Your task to perform on an android device: Search for Italian restaurants on Maps Image 0: 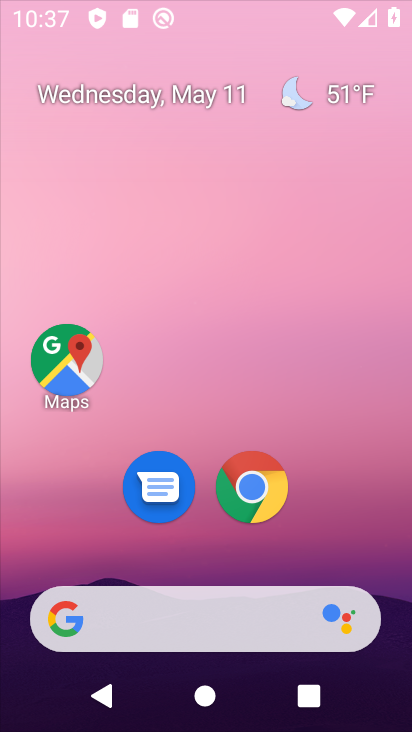
Step 0: drag from (339, 537) to (314, 163)
Your task to perform on an android device: Search for Italian restaurants on Maps Image 1: 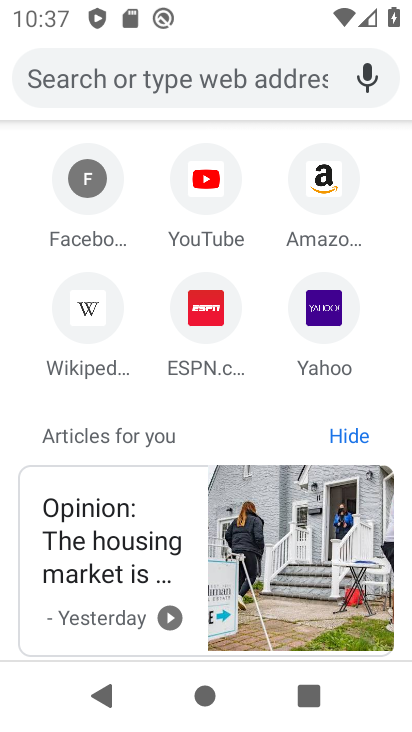
Step 1: press home button
Your task to perform on an android device: Search for Italian restaurants on Maps Image 2: 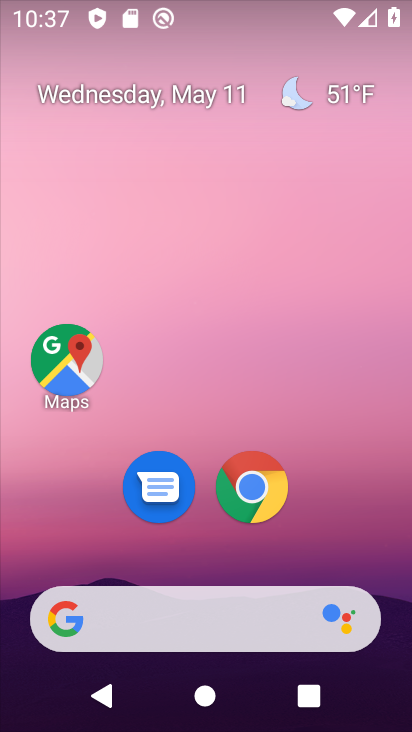
Step 2: click (65, 364)
Your task to perform on an android device: Search for Italian restaurants on Maps Image 3: 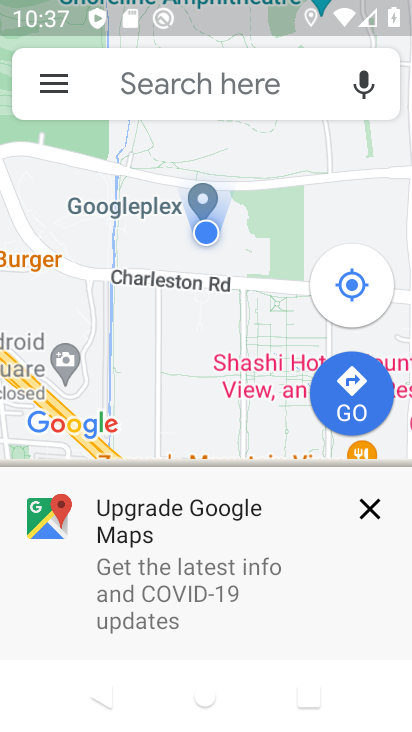
Step 3: click (197, 89)
Your task to perform on an android device: Search for Italian restaurants on Maps Image 4: 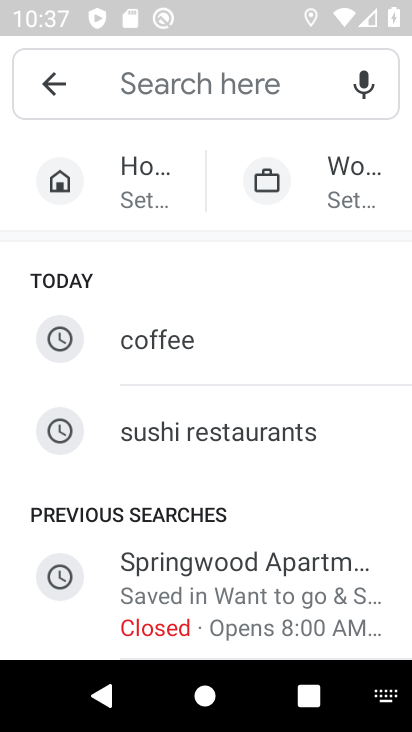
Step 4: drag from (253, 467) to (245, 548)
Your task to perform on an android device: Search for Italian restaurants on Maps Image 5: 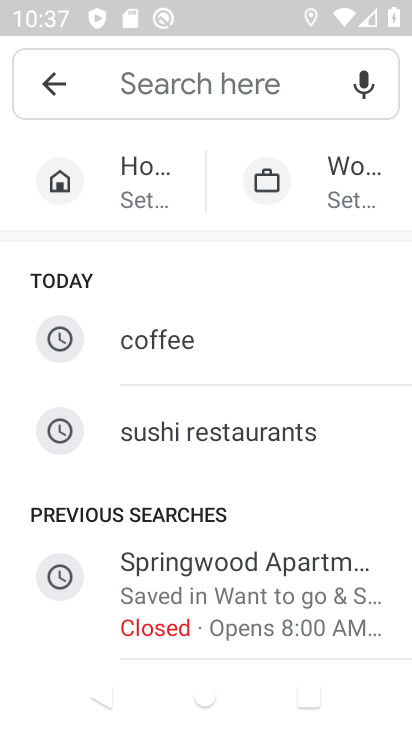
Step 5: click (164, 80)
Your task to perform on an android device: Search for Italian restaurants on Maps Image 6: 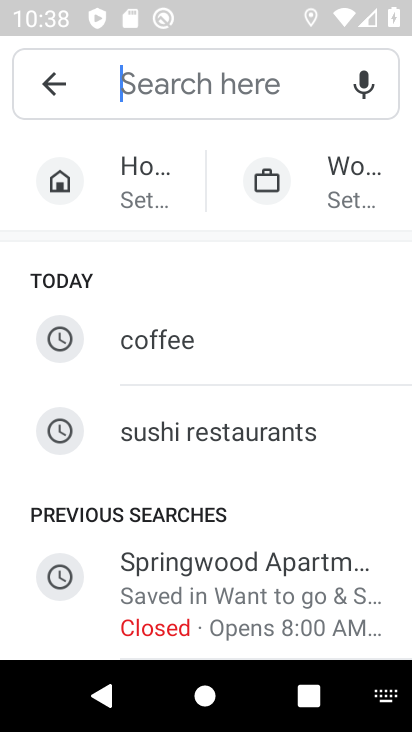
Step 6: type "italian restaurant"
Your task to perform on an android device: Search for Italian restaurants on Maps Image 7: 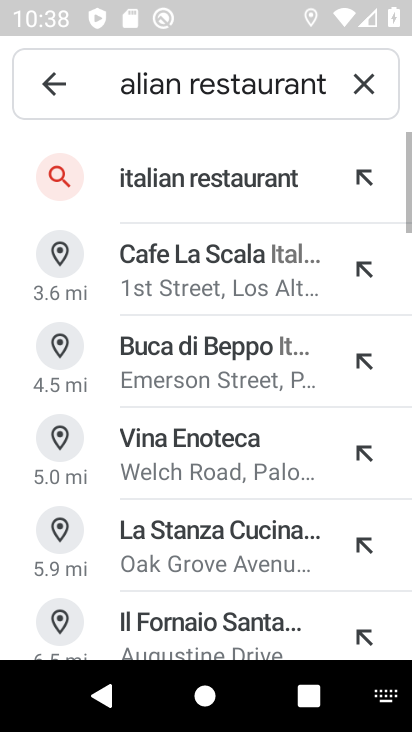
Step 7: click (217, 179)
Your task to perform on an android device: Search for Italian restaurants on Maps Image 8: 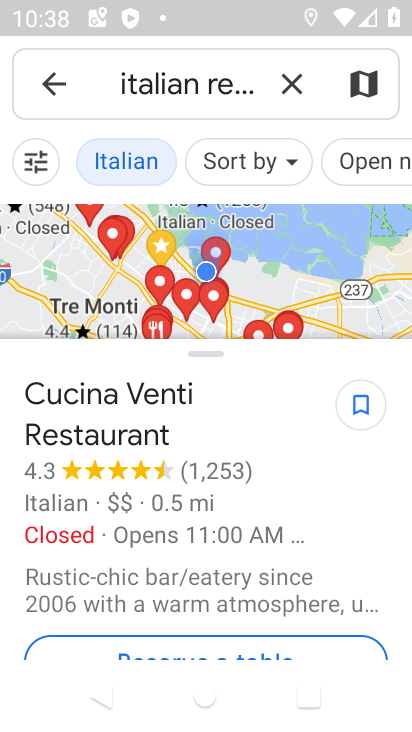
Step 8: task complete